Your task to perform on an android device: change text size in settings app Image 0: 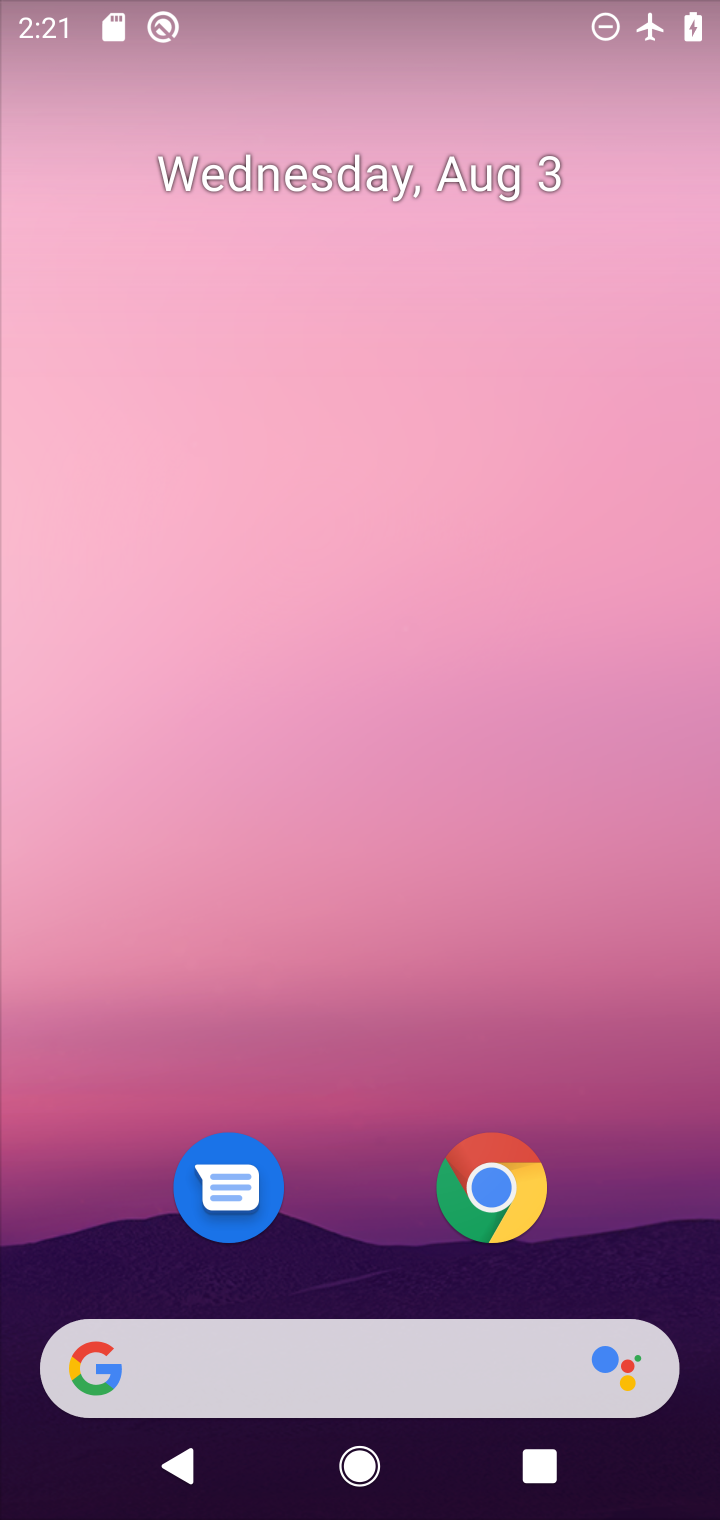
Step 0: drag from (409, 654) to (346, 132)
Your task to perform on an android device: change text size in settings app Image 1: 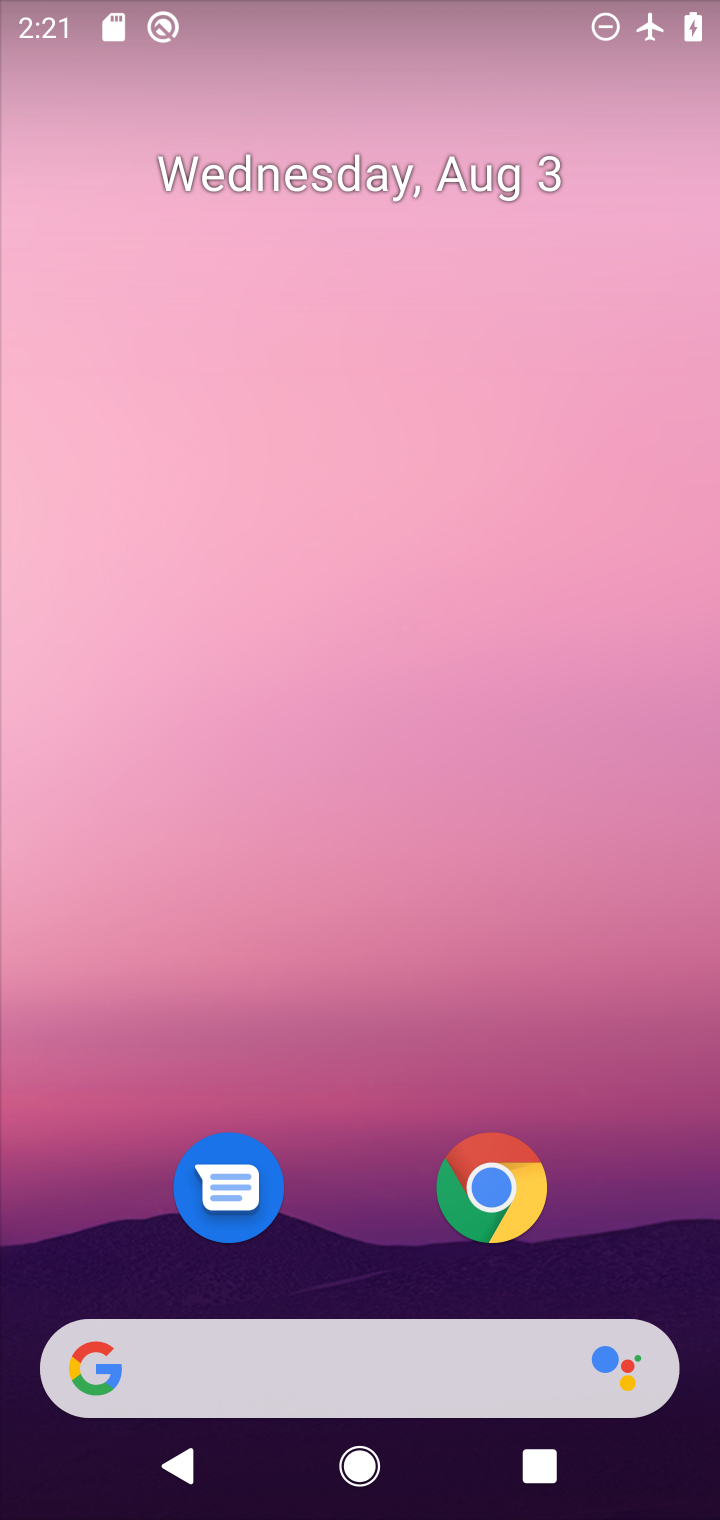
Step 1: drag from (319, 1082) to (400, 26)
Your task to perform on an android device: change text size in settings app Image 2: 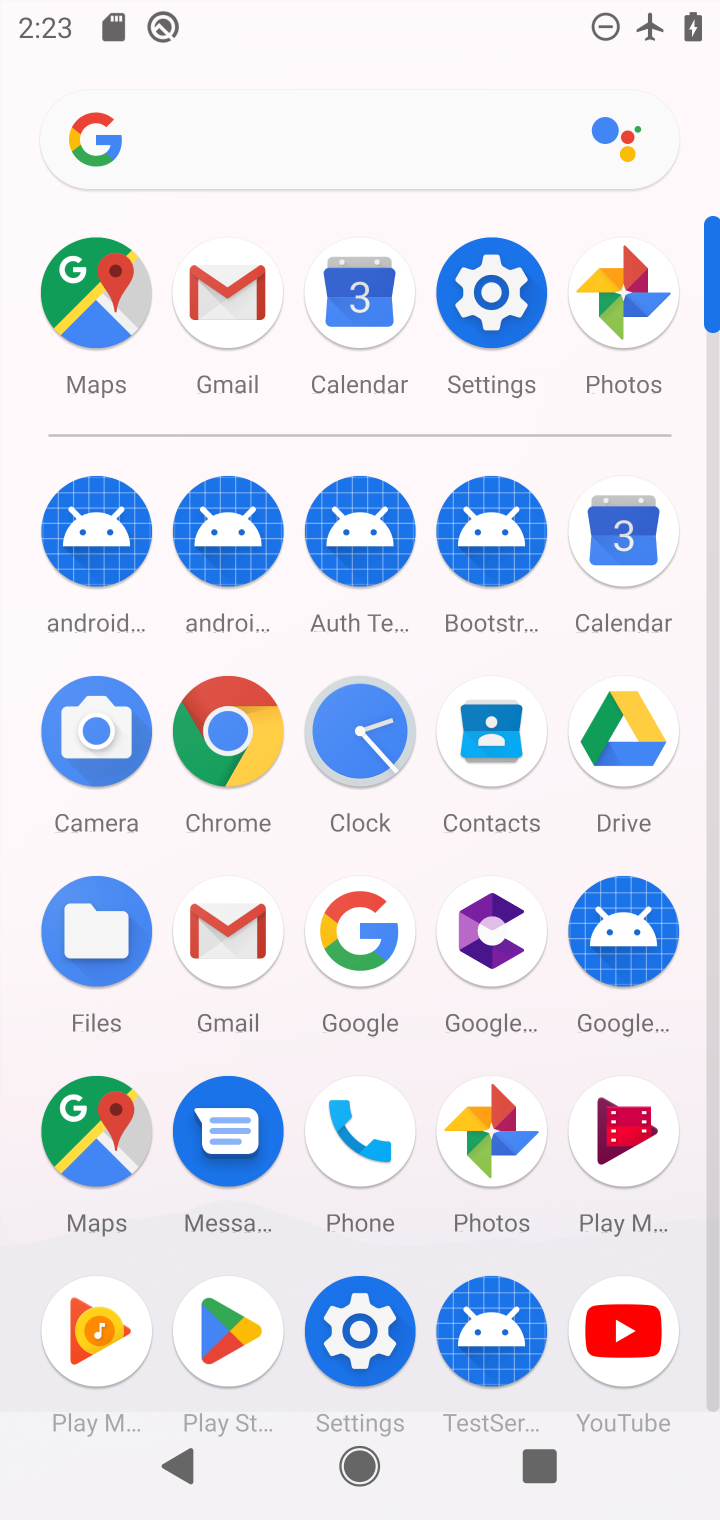
Step 2: click (478, 303)
Your task to perform on an android device: change text size in settings app Image 3: 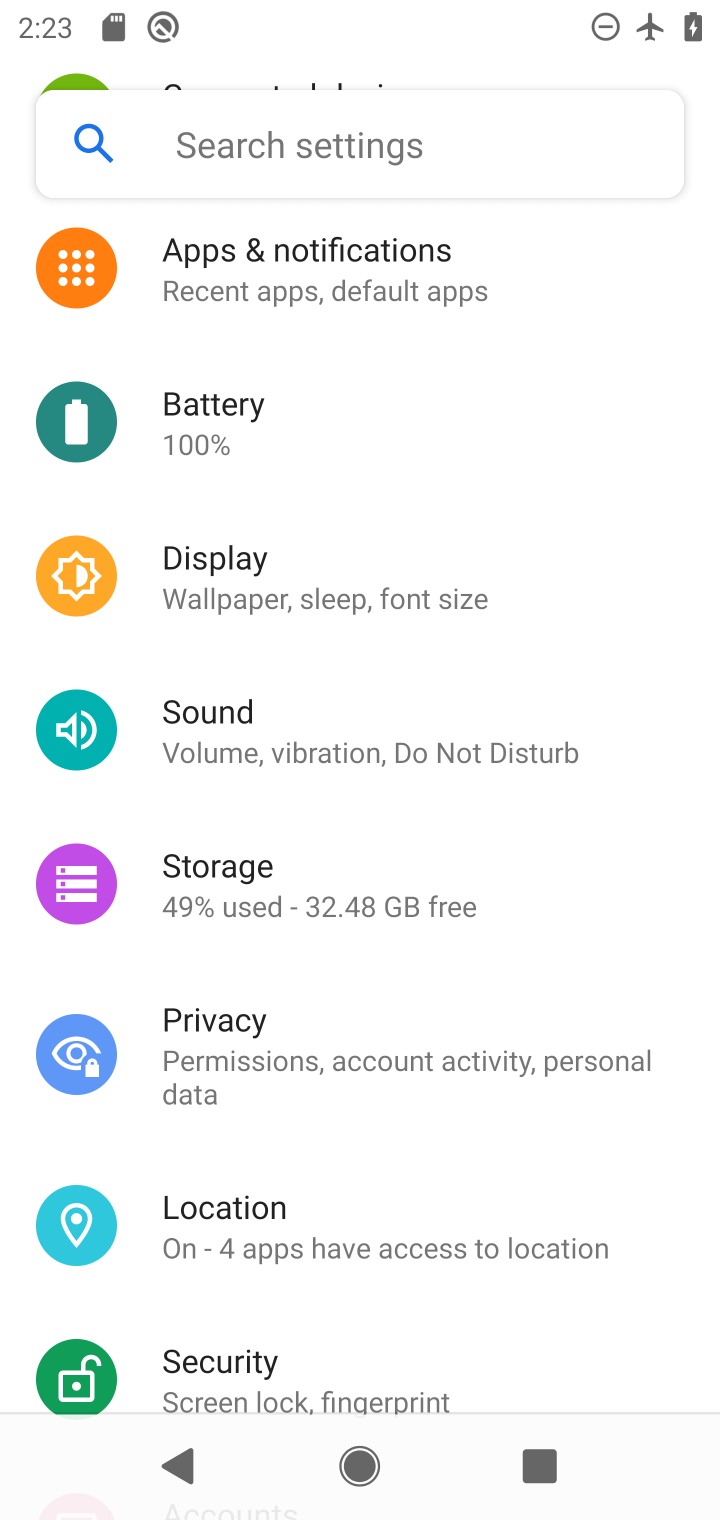
Step 3: click (282, 574)
Your task to perform on an android device: change text size in settings app Image 4: 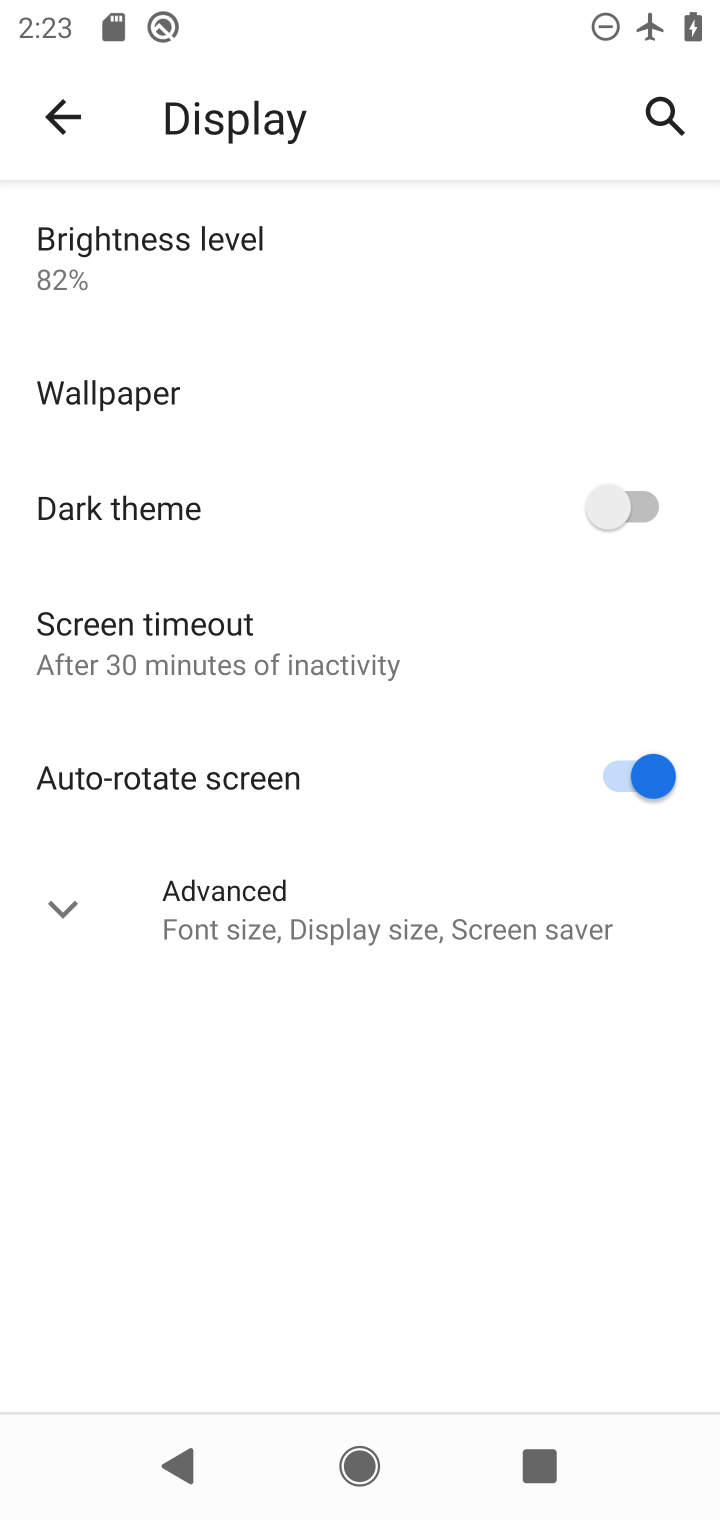
Step 4: click (57, 912)
Your task to perform on an android device: change text size in settings app Image 5: 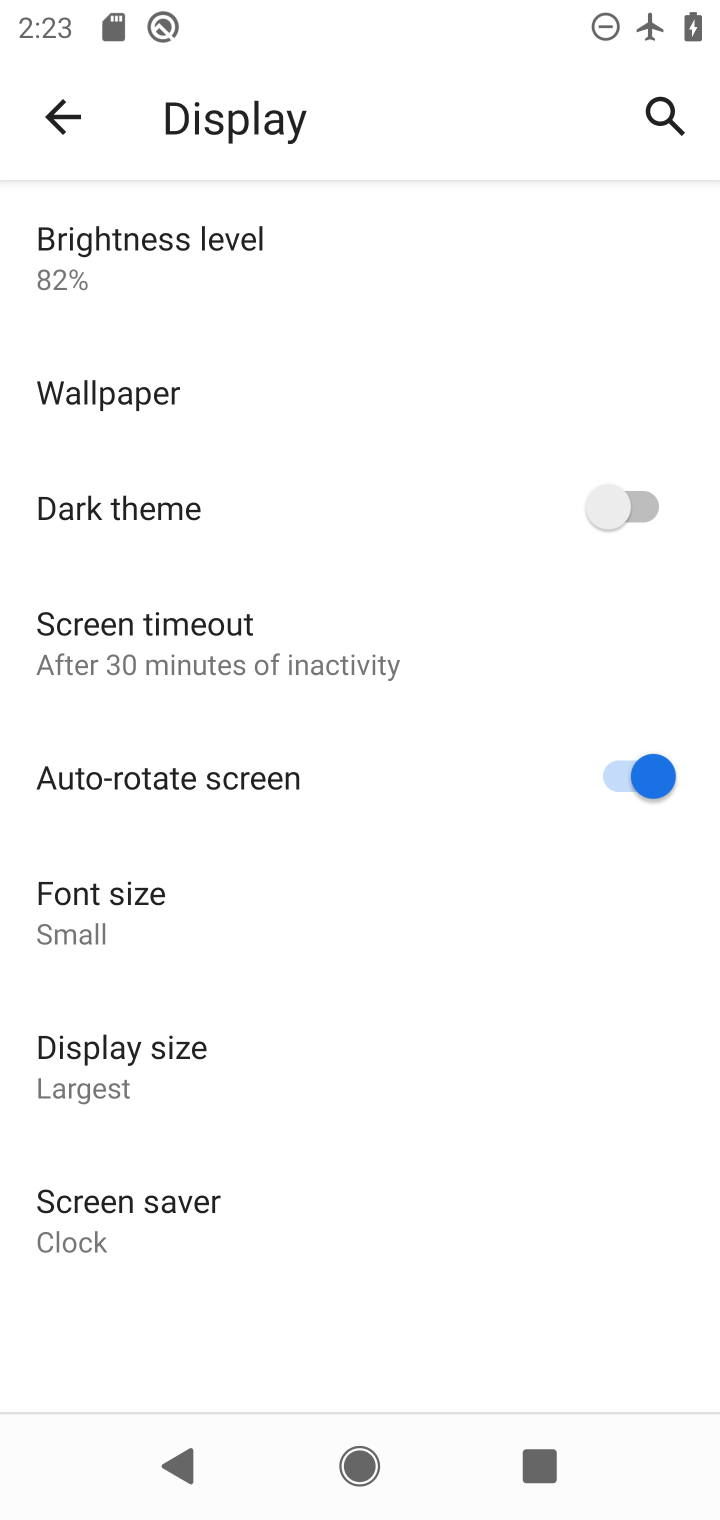
Step 5: click (149, 917)
Your task to perform on an android device: change text size in settings app Image 6: 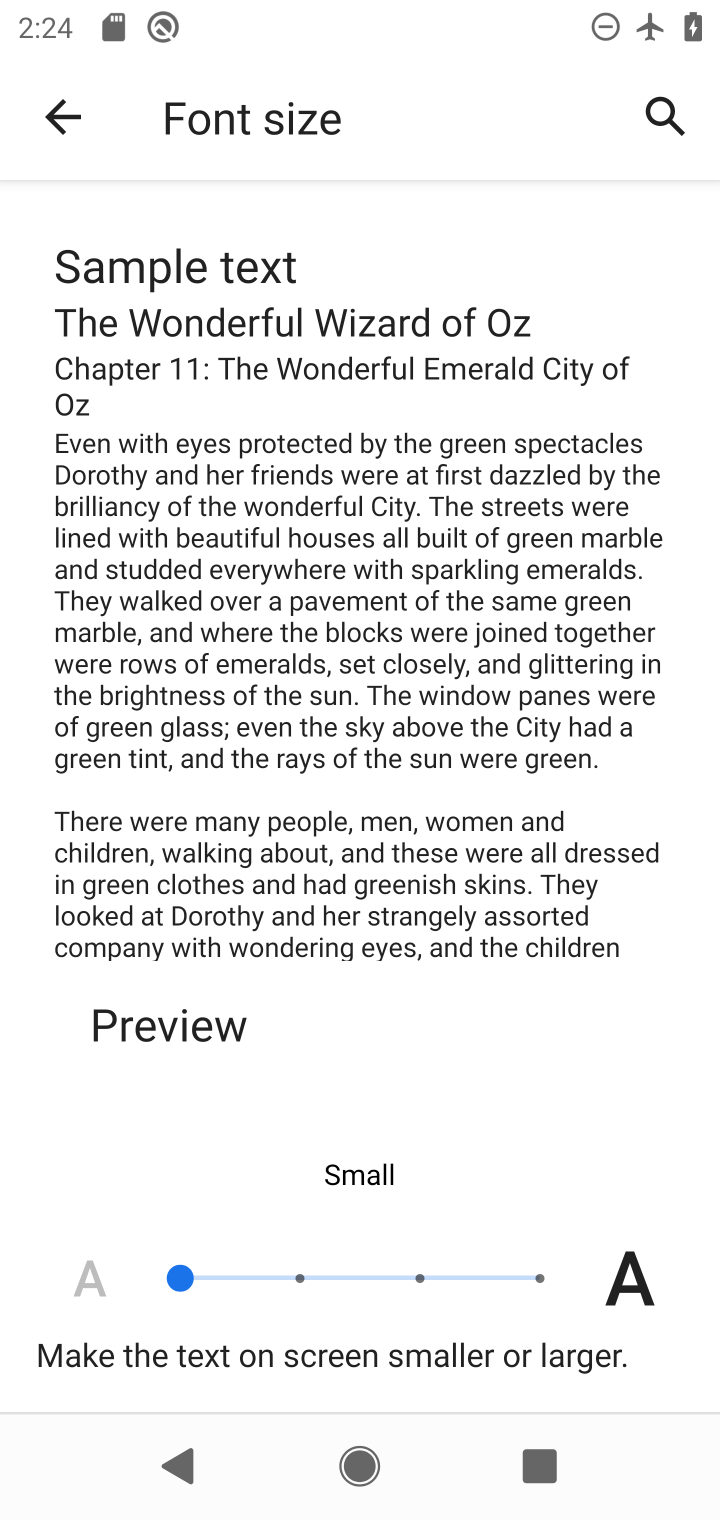
Step 6: click (294, 1279)
Your task to perform on an android device: change text size in settings app Image 7: 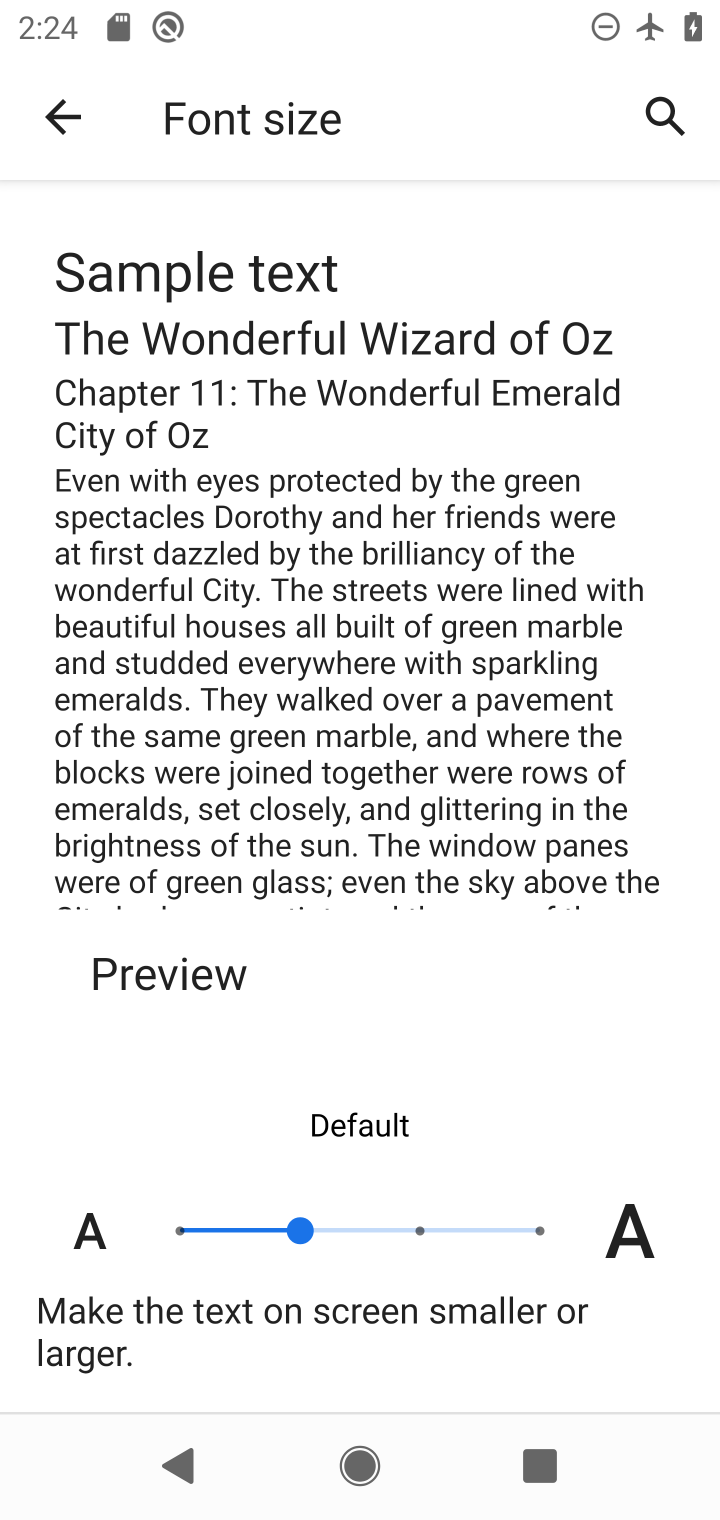
Step 7: click (70, 115)
Your task to perform on an android device: change text size in settings app Image 8: 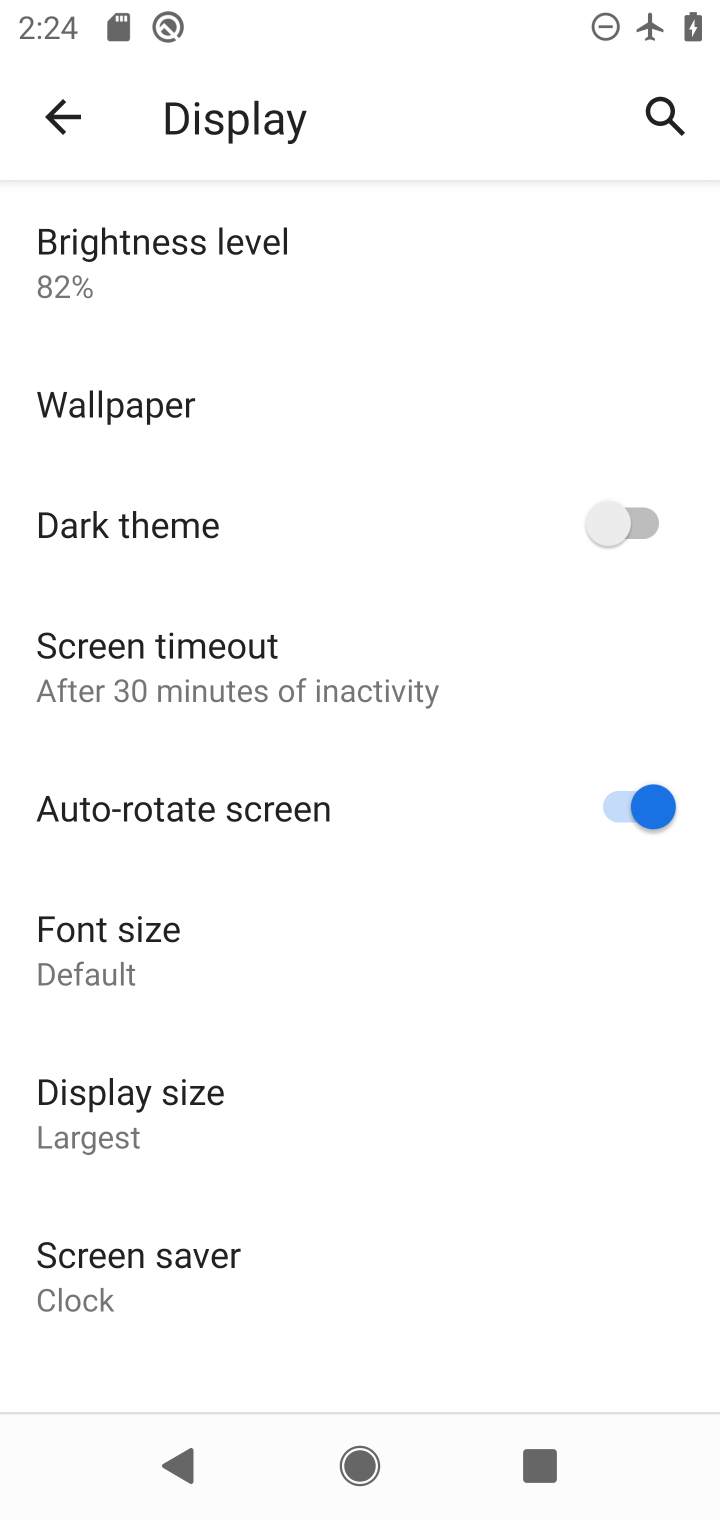
Step 8: task complete